Your task to perform on an android device: change keyboard looks Image 0: 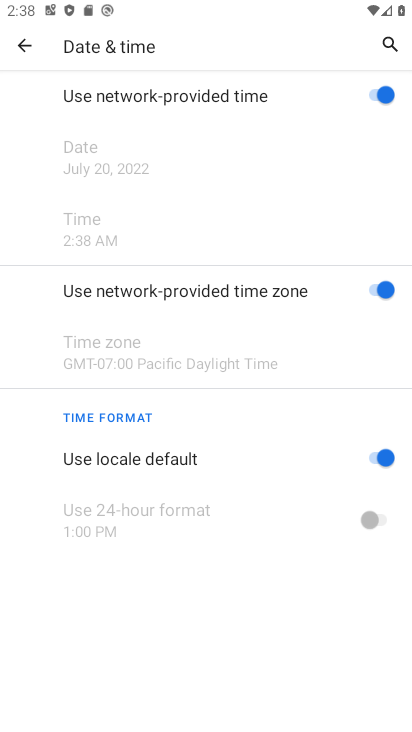
Step 0: press home button
Your task to perform on an android device: change keyboard looks Image 1: 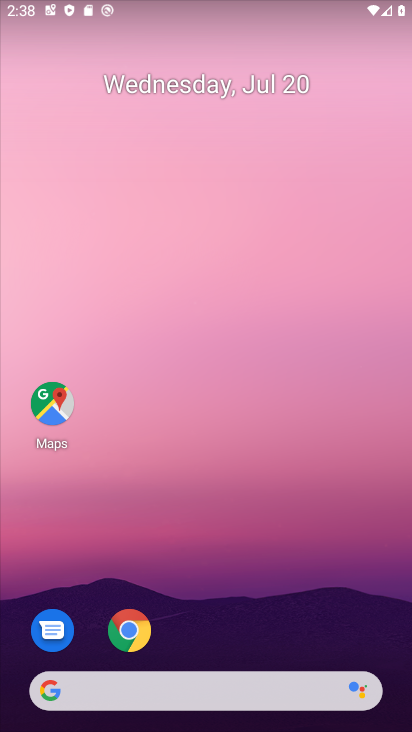
Step 1: drag from (307, 557) to (410, 279)
Your task to perform on an android device: change keyboard looks Image 2: 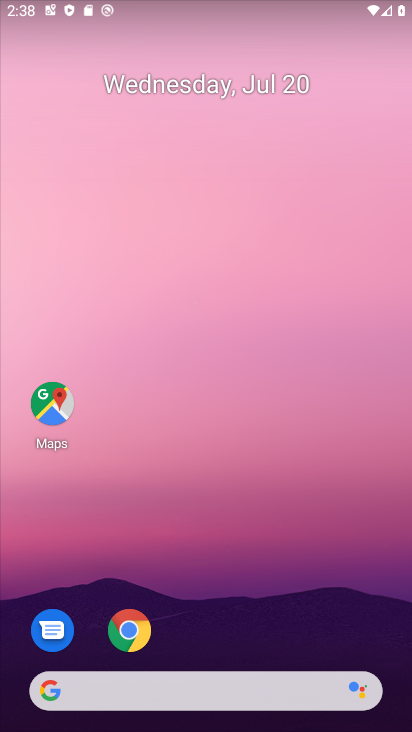
Step 2: drag from (339, 577) to (382, 107)
Your task to perform on an android device: change keyboard looks Image 3: 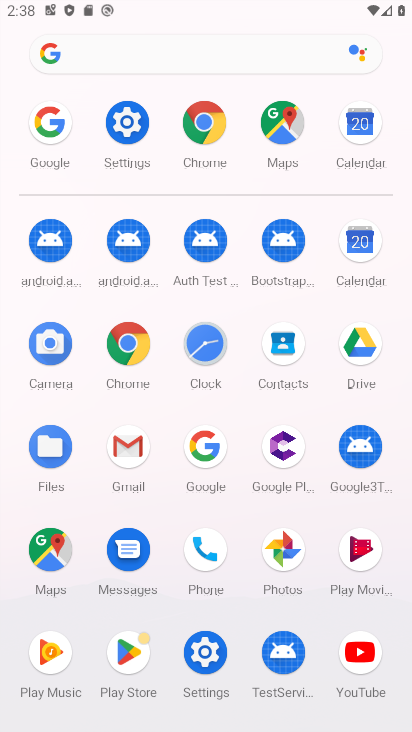
Step 3: click (133, 131)
Your task to perform on an android device: change keyboard looks Image 4: 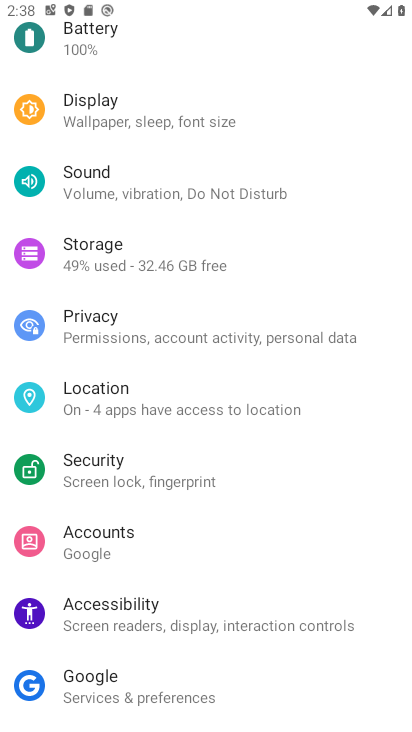
Step 4: drag from (319, 206) to (328, 327)
Your task to perform on an android device: change keyboard looks Image 5: 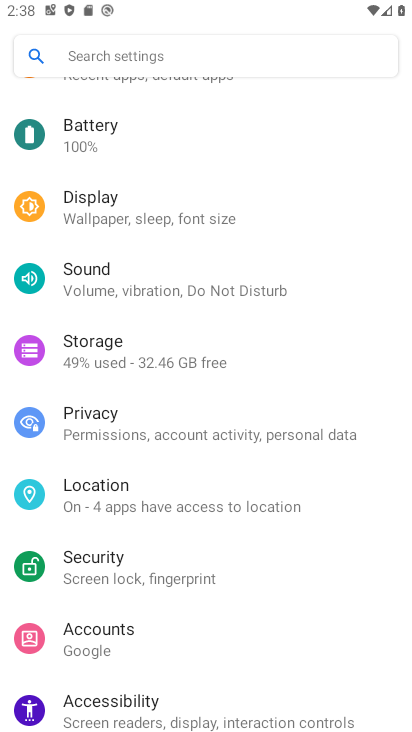
Step 5: drag from (332, 192) to (335, 331)
Your task to perform on an android device: change keyboard looks Image 6: 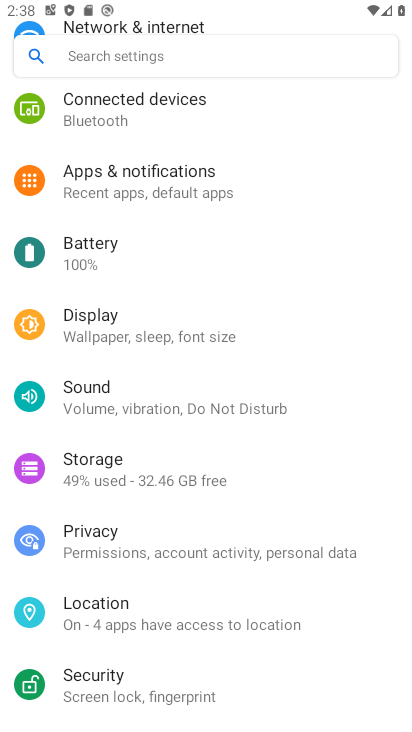
Step 6: drag from (324, 184) to (337, 406)
Your task to perform on an android device: change keyboard looks Image 7: 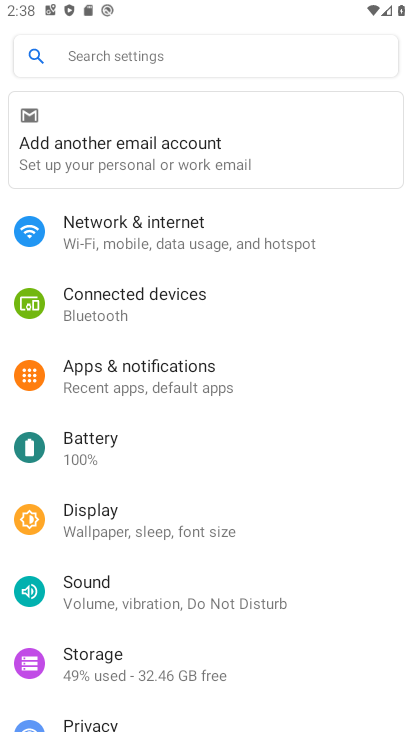
Step 7: drag from (359, 354) to (359, 421)
Your task to perform on an android device: change keyboard looks Image 8: 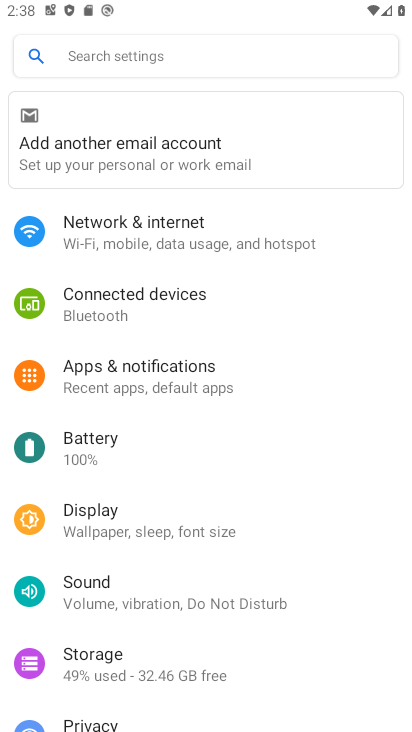
Step 8: drag from (348, 444) to (346, 263)
Your task to perform on an android device: change keyboard looks Image 9: 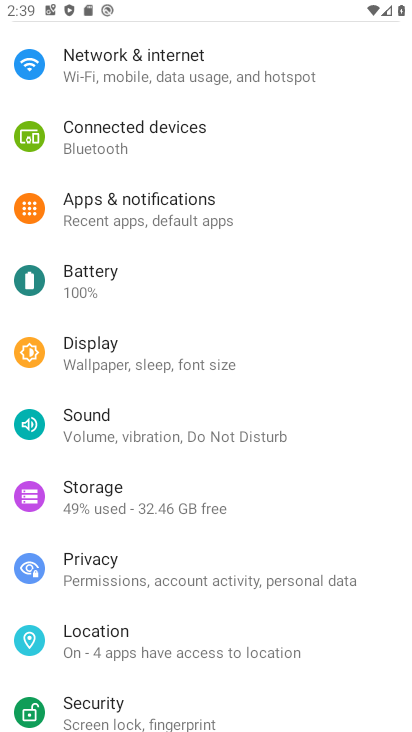
Step 9: drag from (328, 489) to (345, 270)
Your task to perform on an android device: change keyboard looks Image 10: 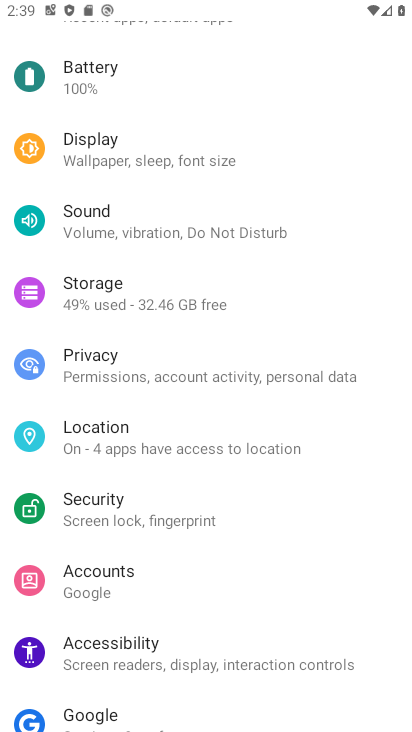
Step 10: drag from (311, 510) to (323, 431)
Your task to perform on an android device: change keyboard looks Image 11: 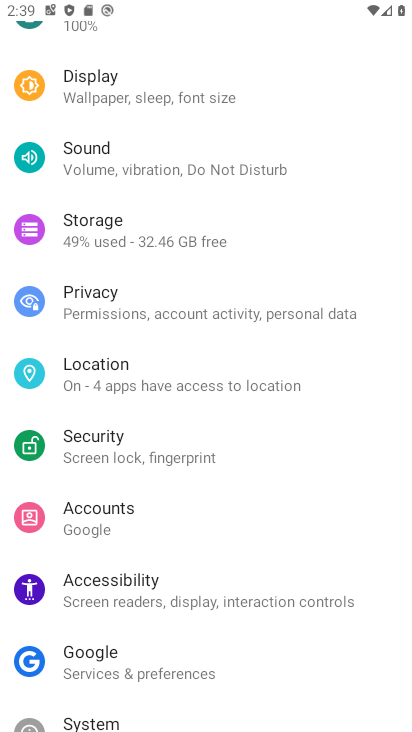
Step 11: drag from (312, 545) to (312, 439)
Your task to perform on an android device: change keyboard looks Image 12: 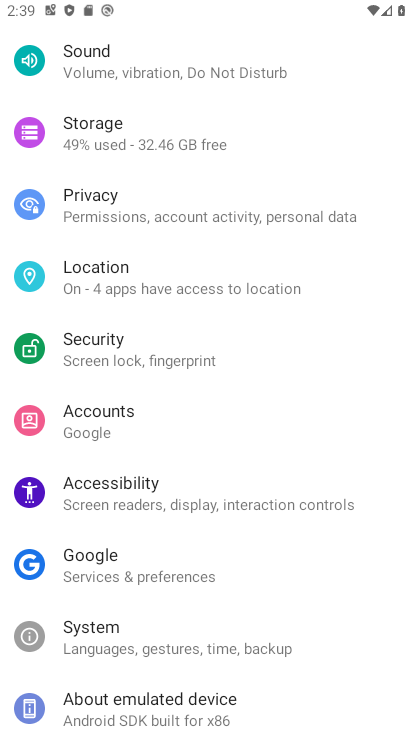
Step 12: click (269, 643)
Your task to perform on an android device: change keyboard looks Image 13: 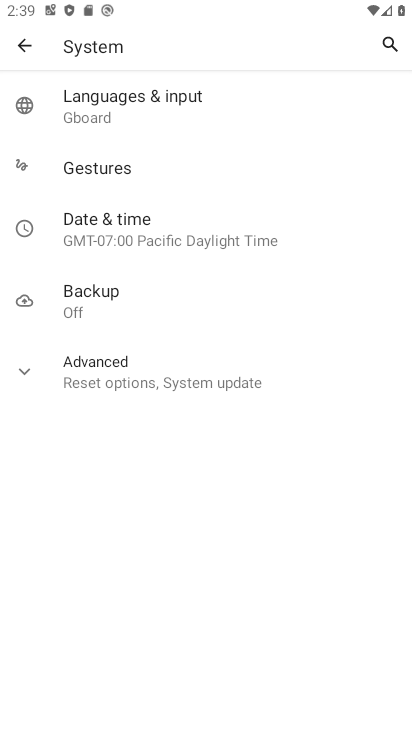
Step 13: click (152, 121)
Your task to perform on an android device: change keyboard looks Image 14: 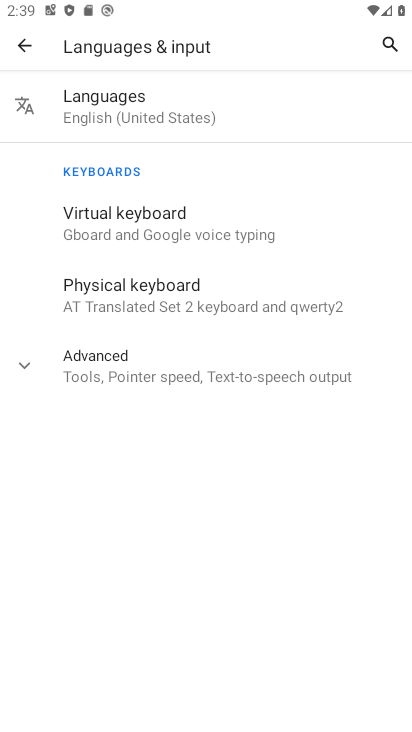
Step 14: click (179, 239)
Your task to perform on an android device: change keyboard looks Image 15: 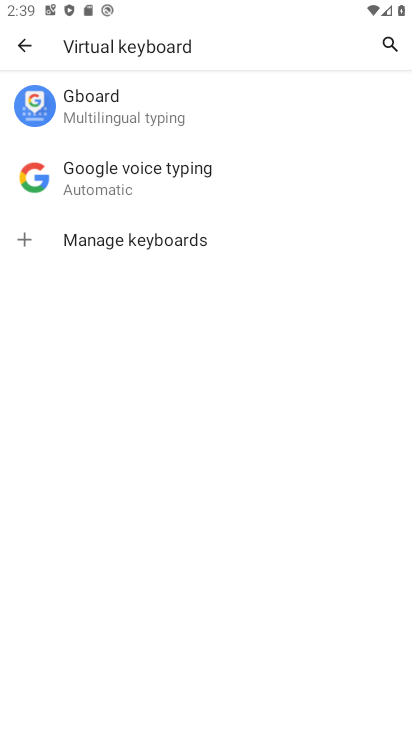
Step 15: click (153, 125)
Your task to perform on an android device: change keyboard looks Image 16: 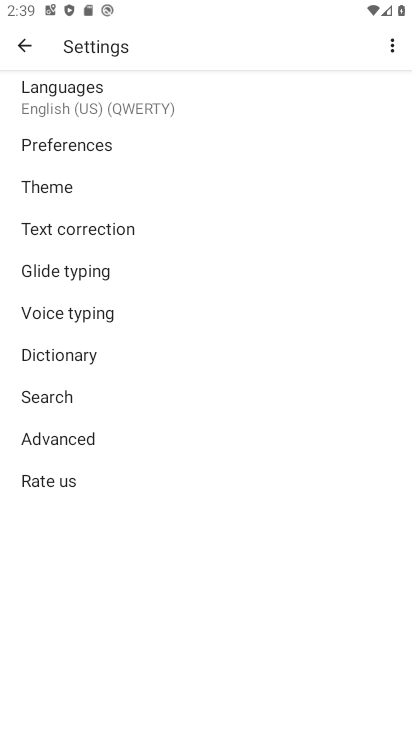
Step 16: click (112, 177)
Your task to perform on an android device: change keyboard looks Image 17: 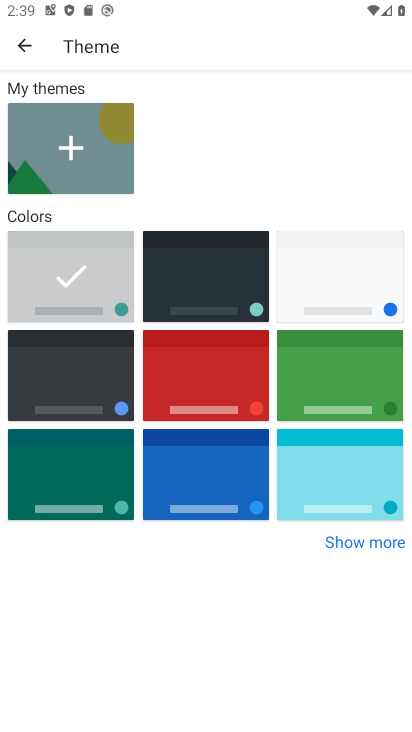
Step 17: click (203, 276)
Your task to perform on an android device: change keyboard looks Image 18: 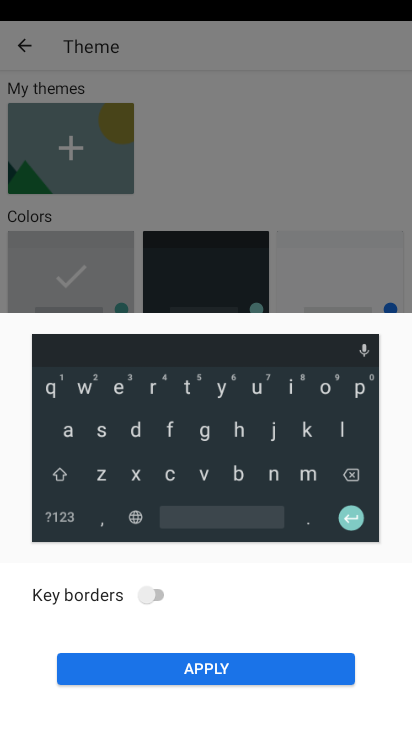
Step 18: click (233, 669)
Your task to perform on an android device: change keyboard looks Image 19: 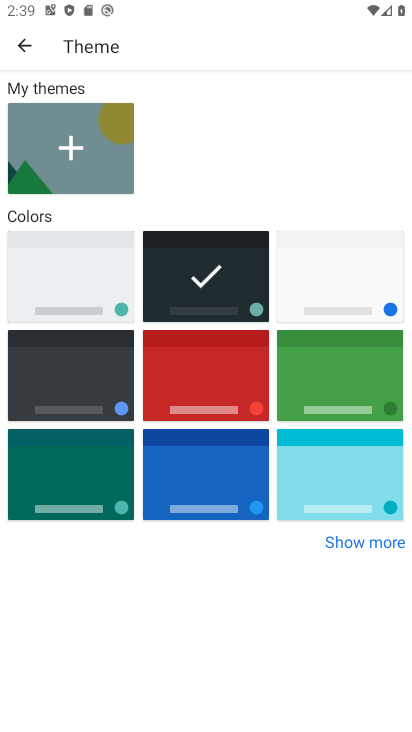
Step 19: task complete